Your task to perform on an android device: Set the phone to "Do not disturb". Image 0: 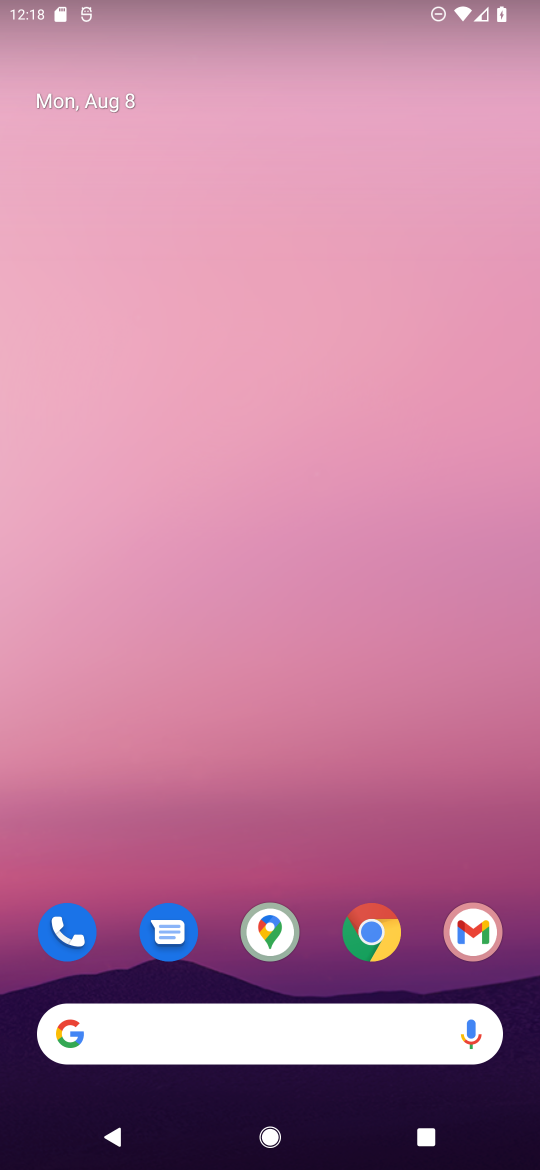
Step 0: drag from (301, 15) to (476, 760)
Your task to perform on an android device: Set the phone to "Do not disturb". Image 1: 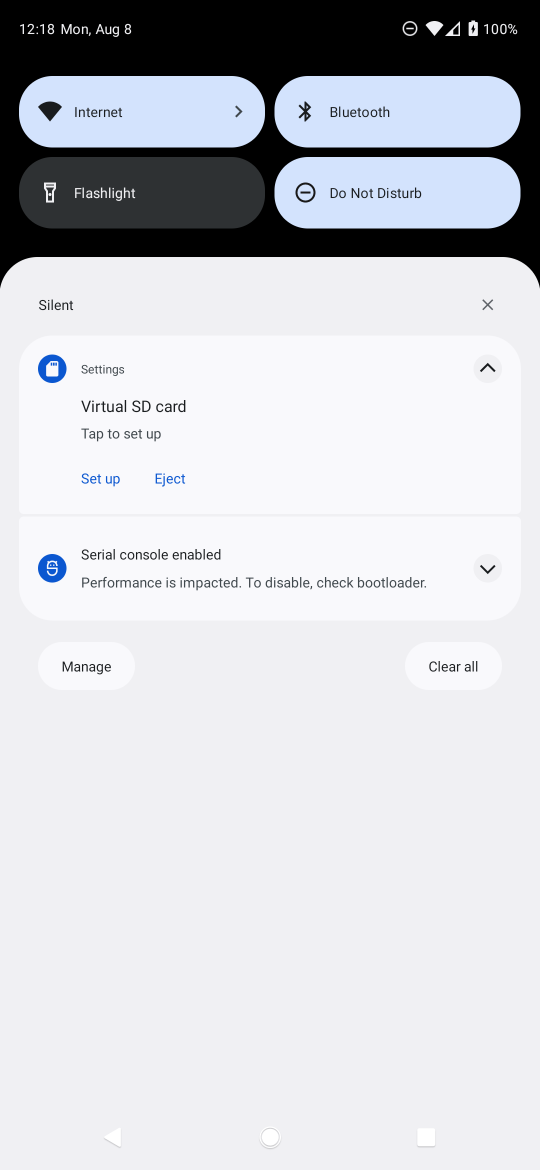
Step 1: click (411, 197)
Your task to perform on an android device: Set the phone to "Do not disturb". Image 2: 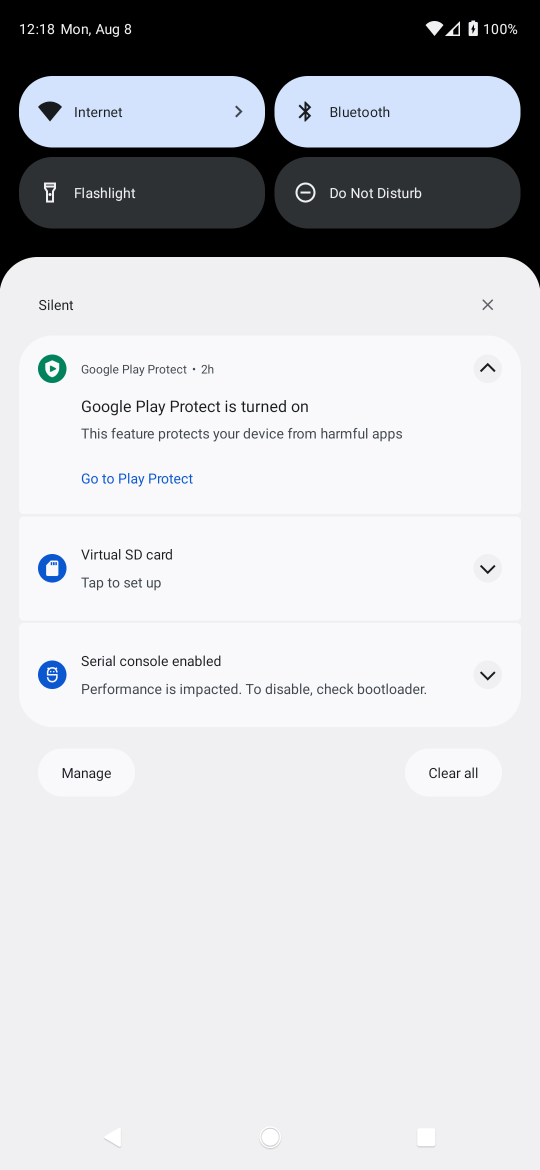
Step 2: task complete